Your task to perform on an android device: manage bookmarks in the chrome app Image 0: 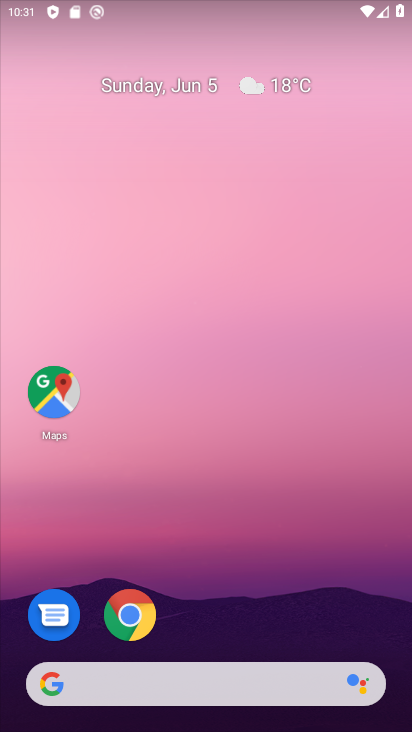
Step 0: click (128, 636)
Your task to perform on an android device: manage bookmarks in the chrome app Image 1: 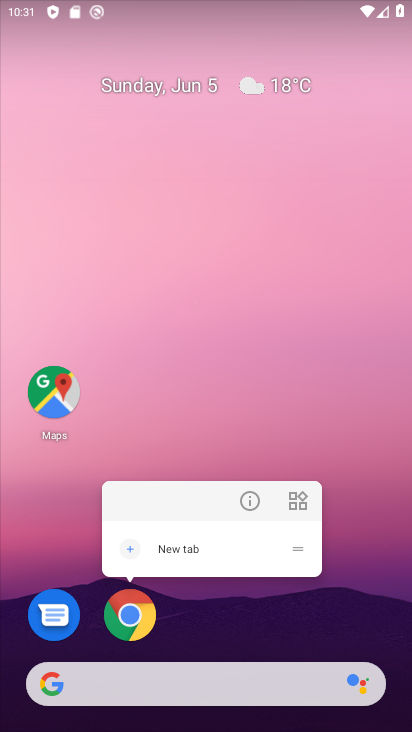
Step 1: click (128, 633)
Your task to perform on an android device: manage bookmarks in the chrome app Image 2: 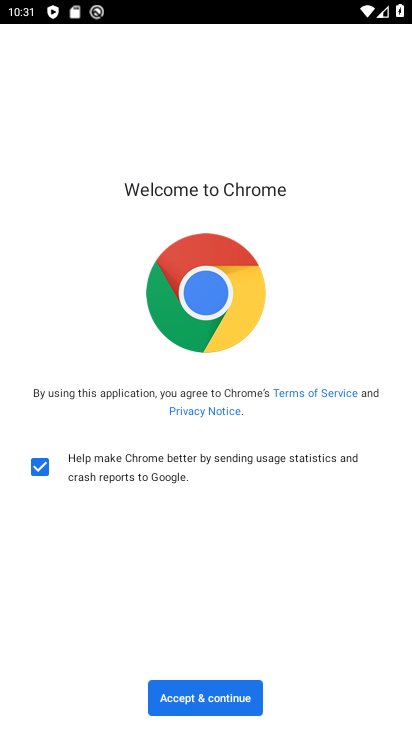
Step 2: click (238, 696)
Your task to perform on an android device: manage bookmarks in the chrome app Image 3: 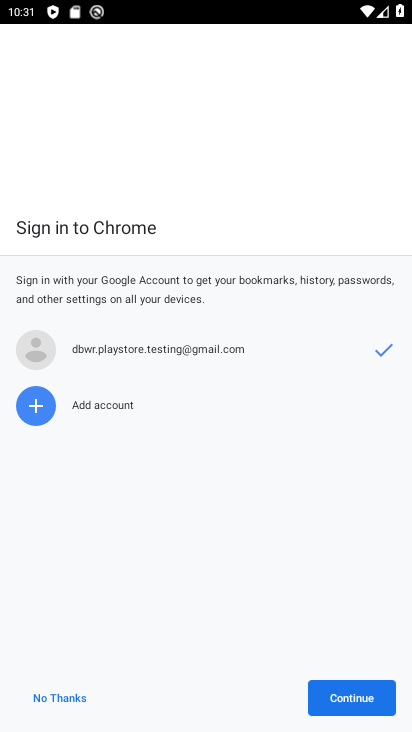
Step 3: click (343, 709)
Your task to perform on an android device: manage bookmarks in the chrome app Image 4: 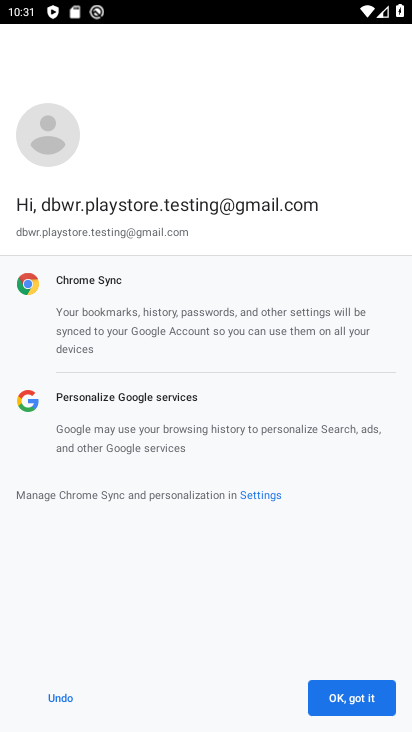
Step 4: click (341, 708)
Your task to perform on an android device: manage bookmarks in the chrome app Image 5: 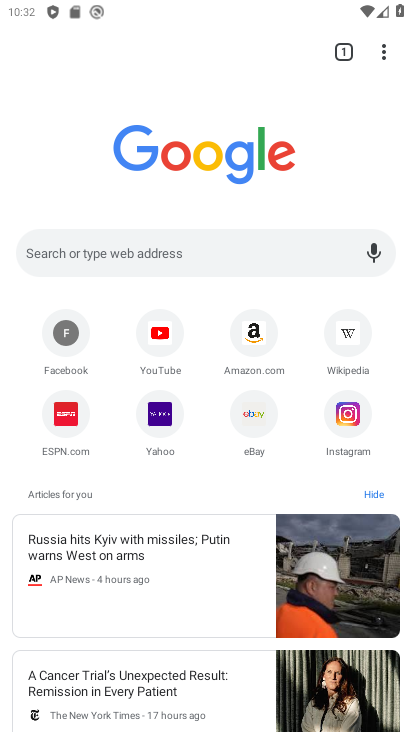
Step 5: drag from (378, 54) to (311, 196)
Your task to perform on an android device: manage bookmarks in the chrome app Image 6: 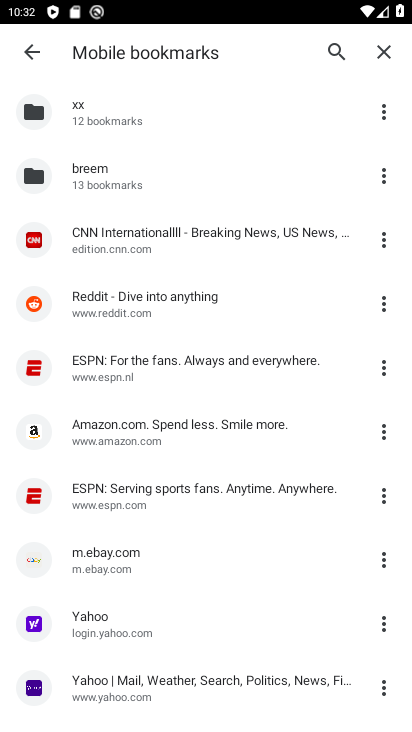
Step 6: click (210, 213)
Your task to perform on an android device: manage bookmarks in the chrome app Image 7: 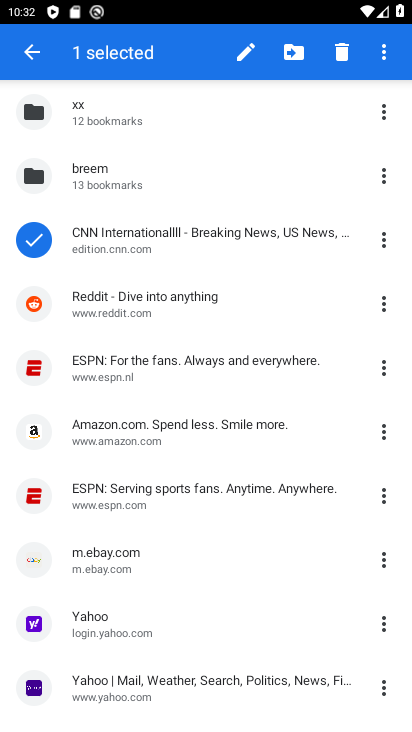
Step 7: click (180, 296)
Your task to perform on an android device: manage bookmarks in the chrome app Image 8: 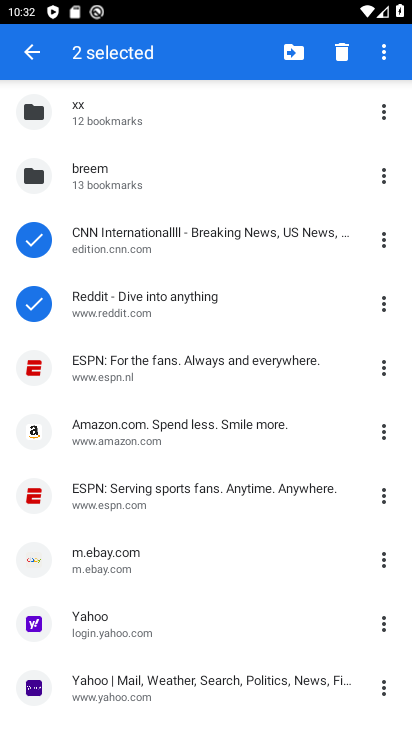
Step 8: click (148, 361)
Your task to perform on an android device: manage bookmarks in the chrome app Image 9: 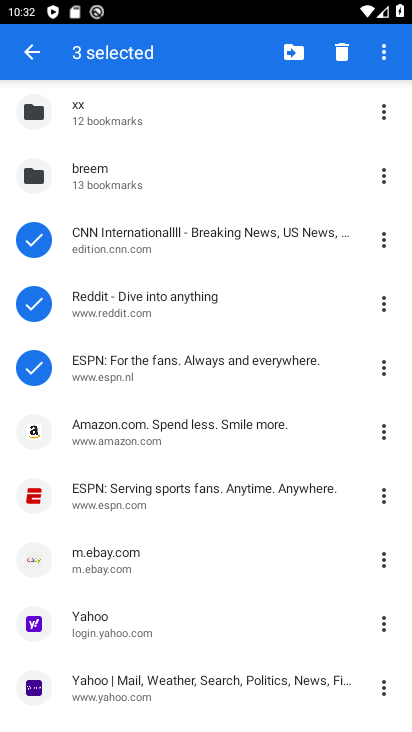
Step 9: click (153, 441)
Your task to perform on an android device: manage bookmarks in the chrome app Image 10: 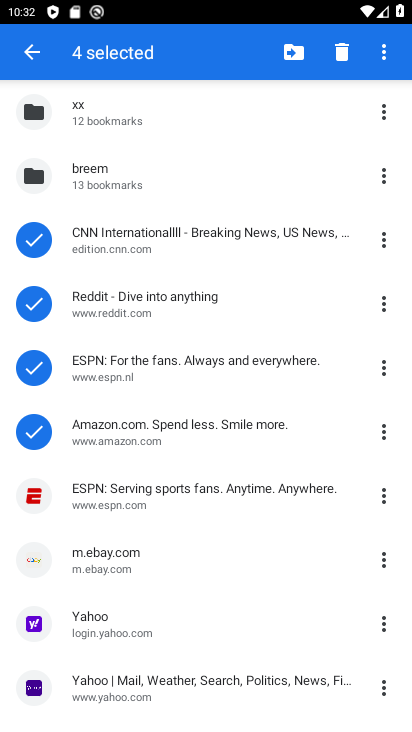
Step 10: click (136, 513)
Your task to perform on an android device: manage bookmarks in the chrome app Image 11: 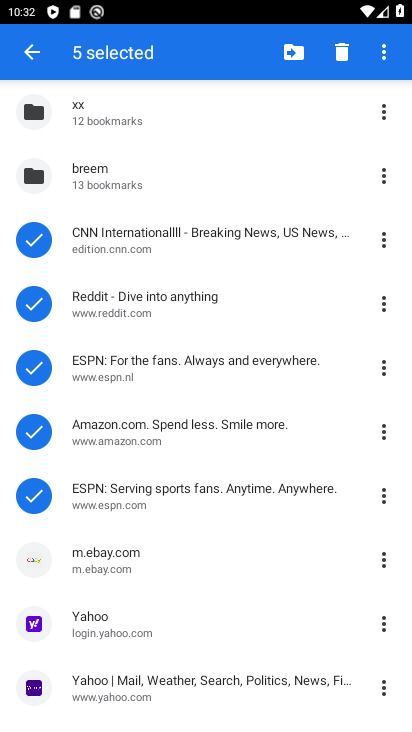
Step 11: click (152, 568)
Your task to perform on an android device: manage bookmarks in the chrome app Image 12: 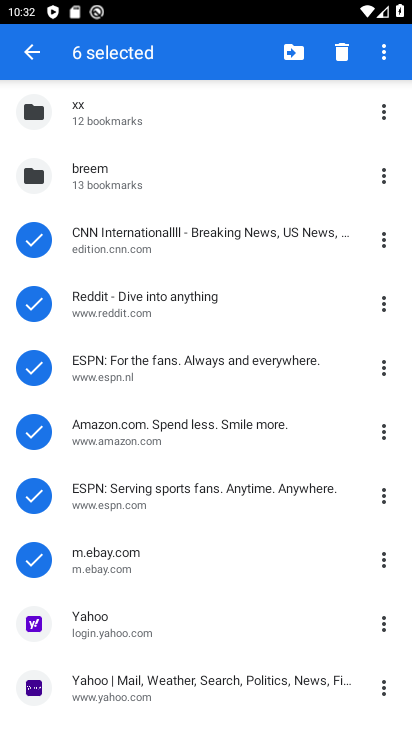
Step 12: click (133, 623)
Your task to perform on an android device: manage bookmarks in the chrome app Image 13: 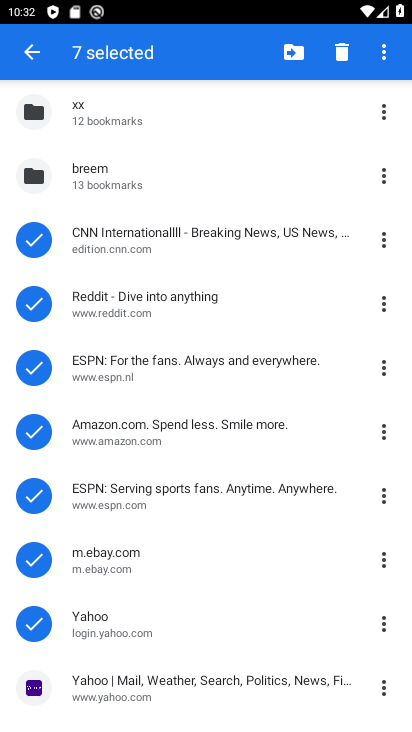
Step 13: drag from (149, 632) to (253, 198)
Your task to perform on an android device: manage bookmarks in the chrome app Image 14: 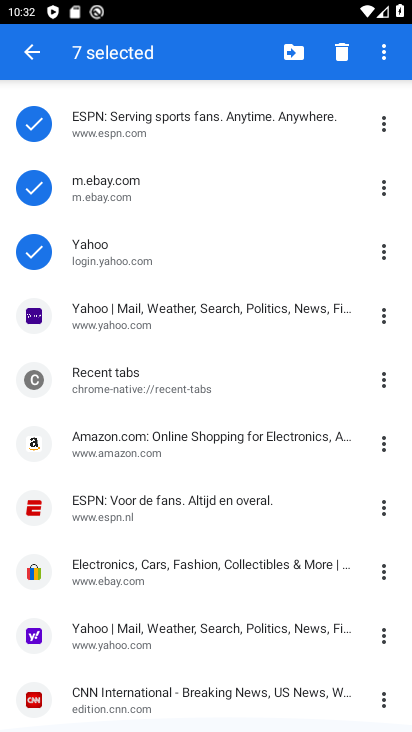
Step 14: click (192, 295)
Your task to perform on an android device: manage bookmarks in the chrome app Image 15: 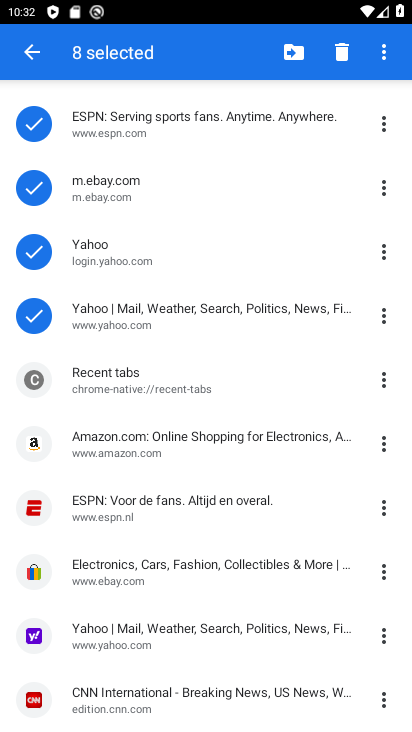
Step 15: click (184, 393)
Your task to perform on an android device: manage bookmarks in the chrome app Image 16: 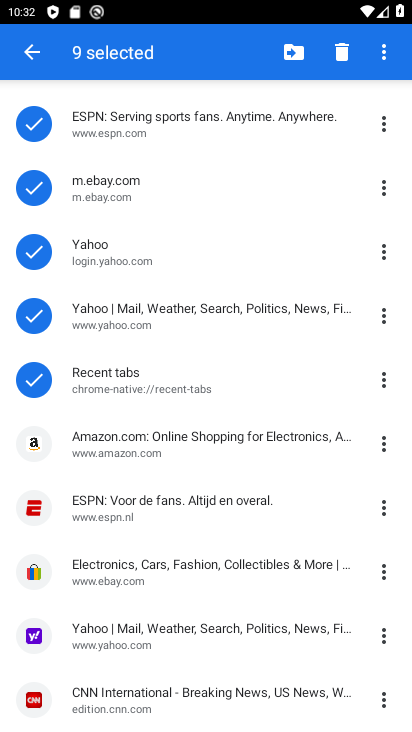
Step 16: click (180, 447)
Your task to perform on an android device: manage bookmarks in the chrome app Image 17: 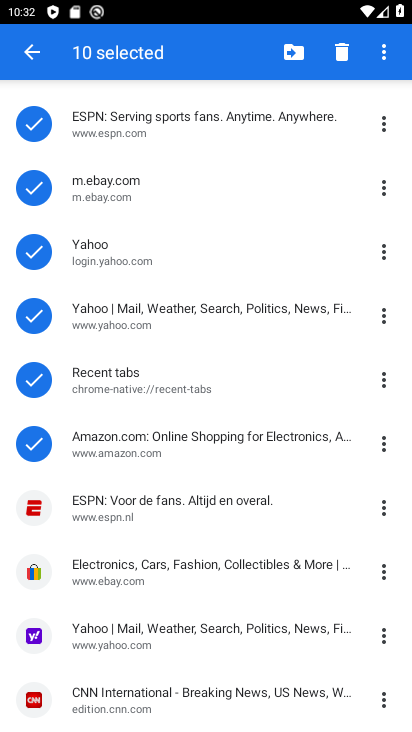
Step 17: click (180, 498)
Your task to perform on an android device: manage bookmarks in the chrome app Image 18: 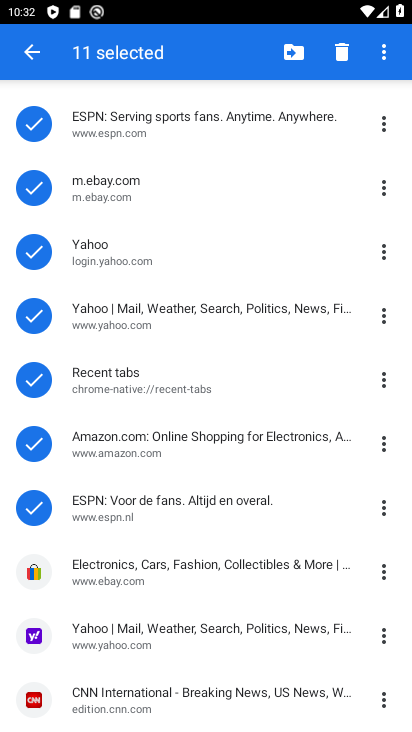
Step 18: click (175, 574)
Your task to perform on an android device: manage bookmarks in the chrome app Image 19: 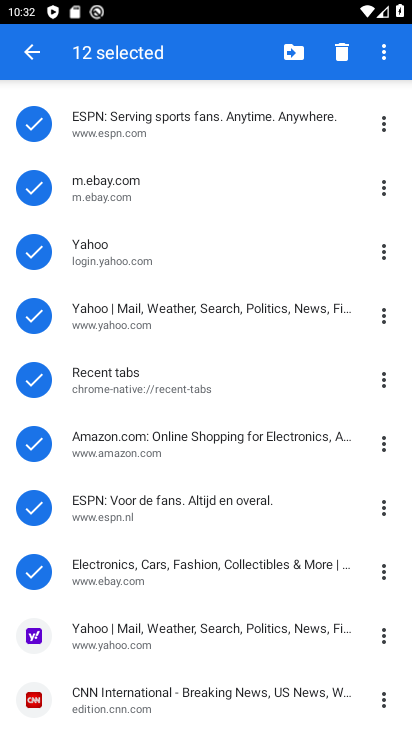
Step 19: click (159, 633)
Your task to perform on an android device: manage bookmarks in the chrome app Image 20: 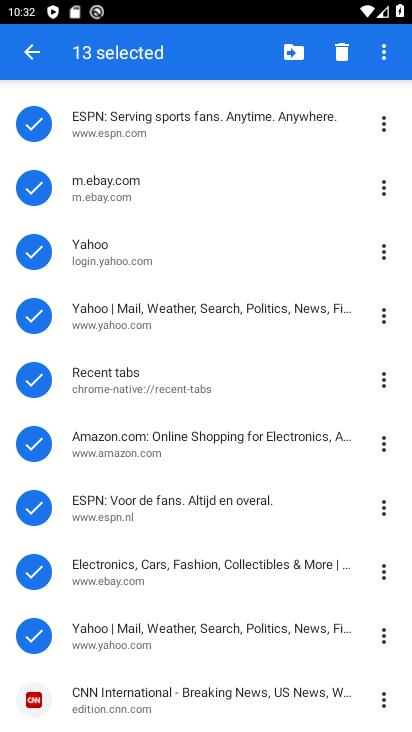
Step 20: click (152, 692)
Your task to perform on an android device: manage bookmarks in the chrome app Image 21: 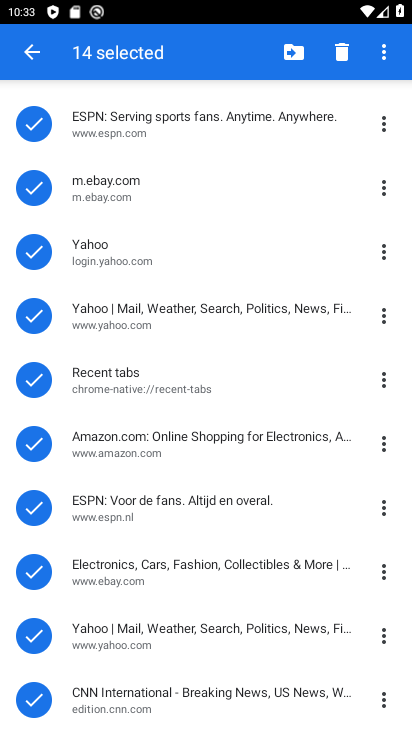
Step 21: drag from (144, 685) to (244, 220)
Your task to perform on an android device: manage bookmarks in the chrome app Image 22: 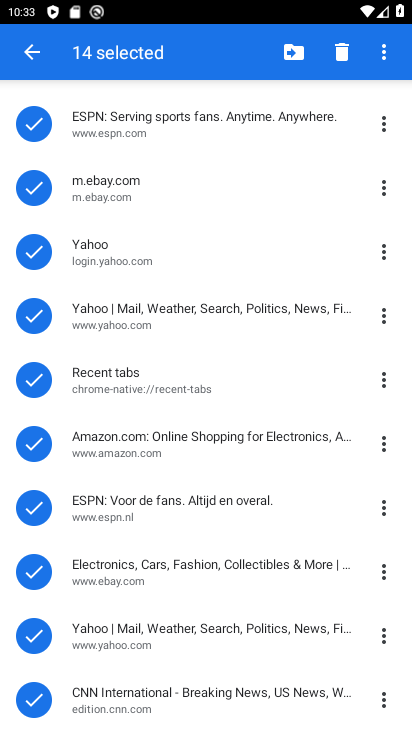
Step 22: click (299, 61)
Your task to perform on an android device: manage bookmarks in the chrome app Image 23: 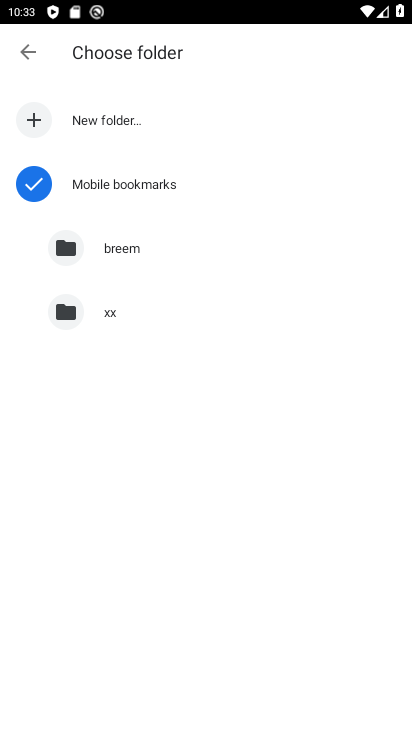
Step 23: click (171, 131)
Your task to perform on an android device: manage bookmarks in the chrome app Image 24: 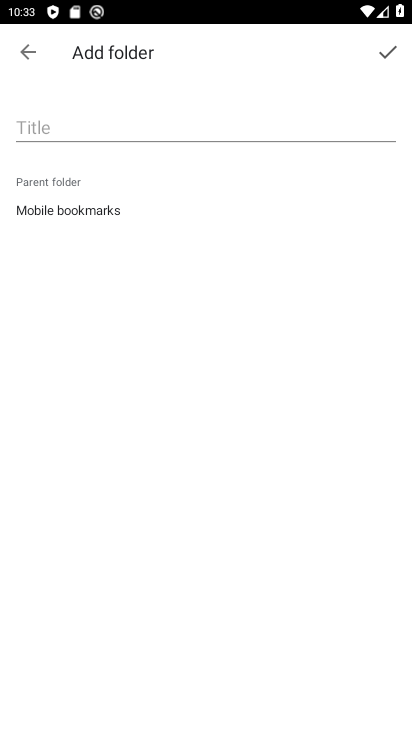
Step 24: click (183, 129)
Your task to perform on an android device: manage bookmarks in the chrome app Image 25: 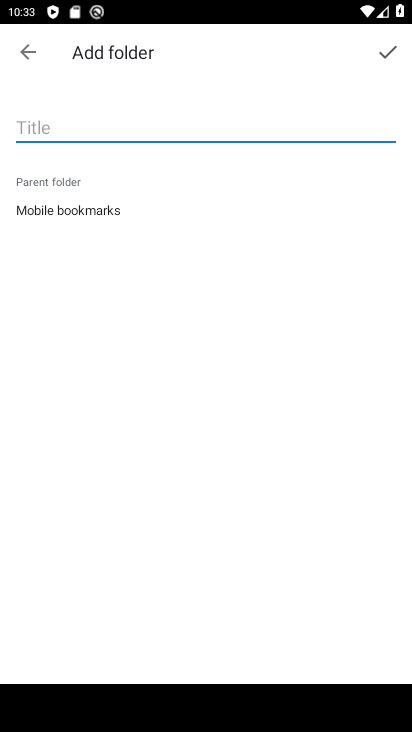
Step 25: type "marks"
Your task to perform on an android device: manage bookmarks in the chrome app Image 26: 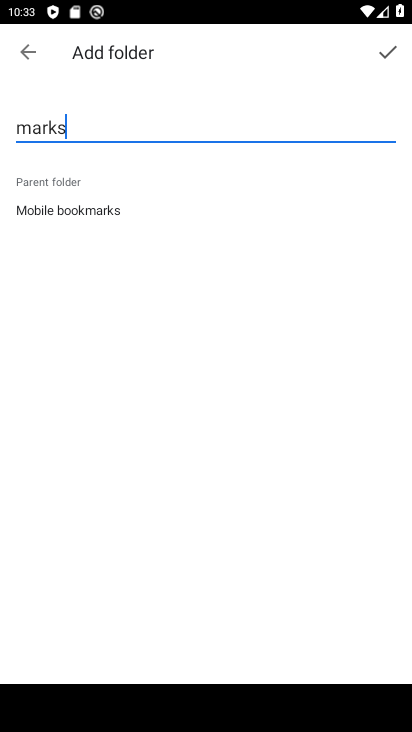
Step 26: click (383, 51)
Your task to perform on an android device: manage bookmarks in the chrome app Image 27: 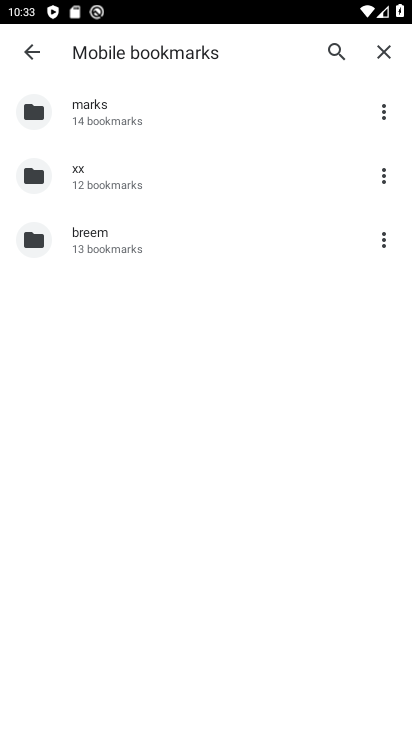
Step 27: task complete